Your task to perform on an android device: Go to privacy settings Image 0: 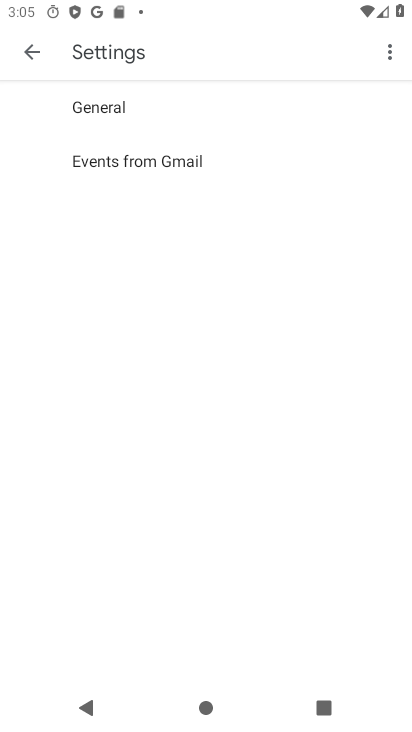
Step 0: press back button
Your task to perform on an android device: Go to privacy settings Image 1: 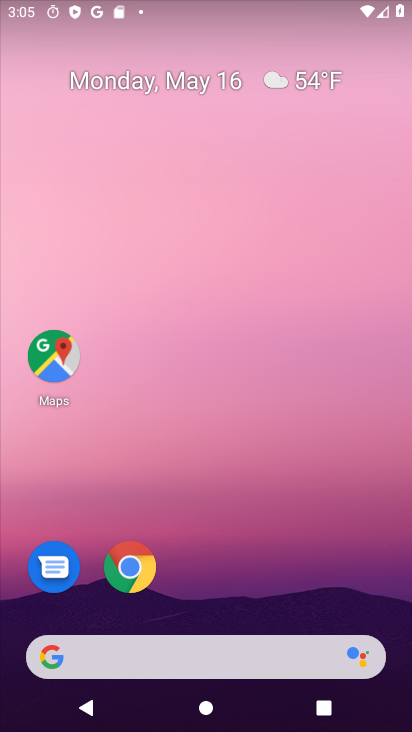
Step 1: drag from (263, 544) to (262, 26)
Your task to perform on an android device: Go to privacy settings Image 2: 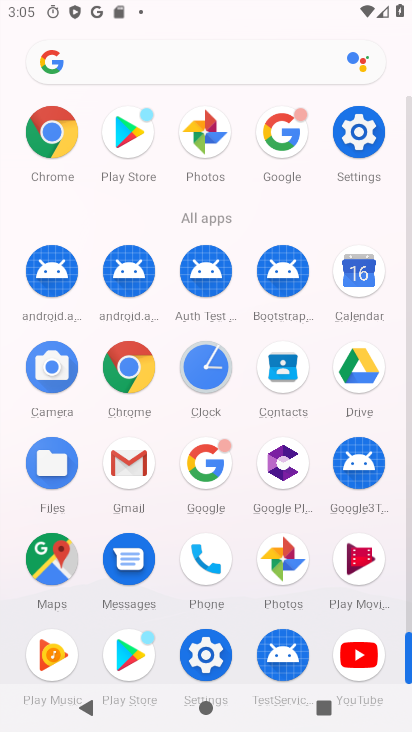
Step 2: click (207, 652)
Your task to perform on an android device: Go to privacy settings Image 3: 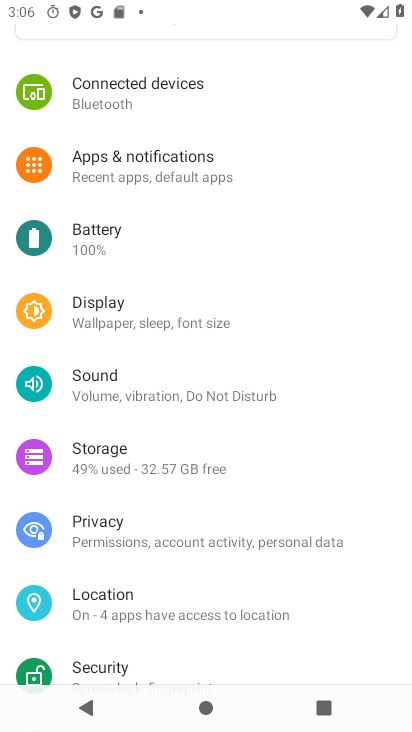
Step 3: click (147, 528)
Your task to perform on an android device: Go to privacy settings Image 4: 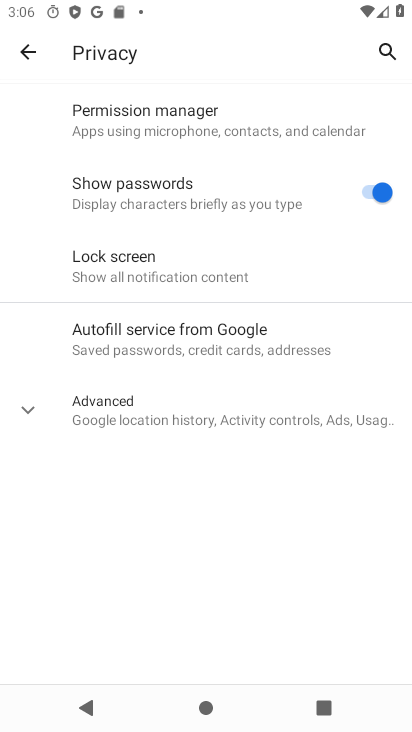
Step 4: task complete